Your task to perform on an android device: Open sound settings Image 0: 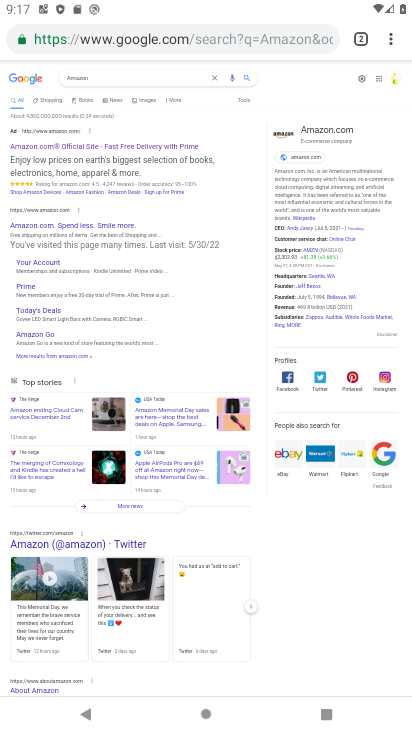
Step 0: press home button
Your task to perform on an android device: Open sound settings Image 1: 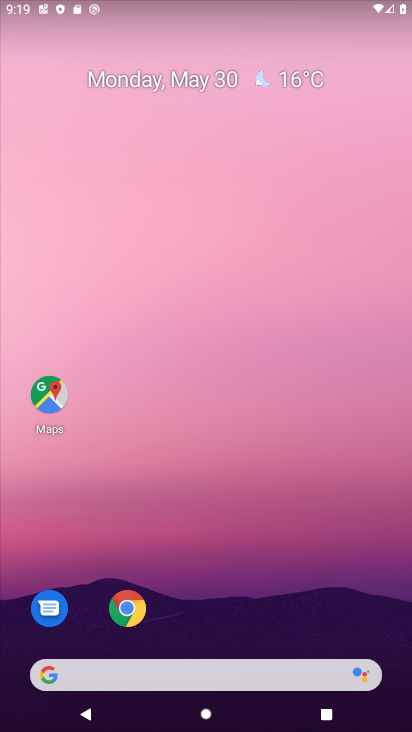
Step 1: drag from (396, 672) to (352, 146)
Your task to perform on an android device: Open sound settings Image 2: 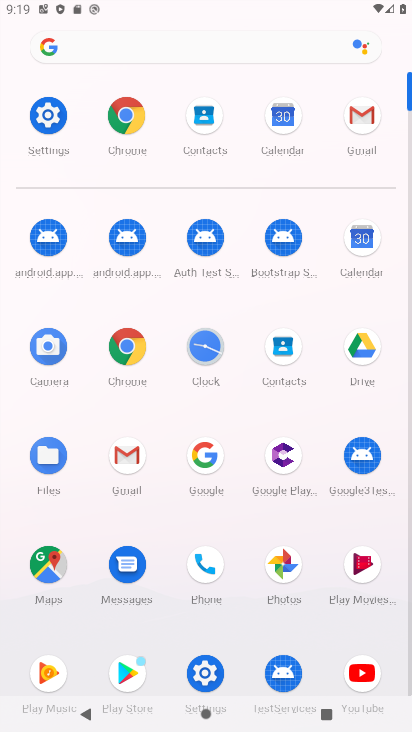
Step 2: click (51, 118)
Your task to perform on an android device: Open sound settings Image 3: 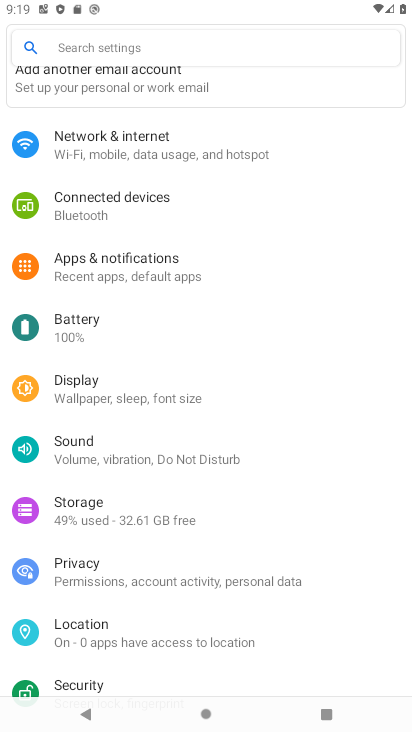
Step 3: click (80, 440)
Your task to perform on an android device: Open sound settings Image 4: 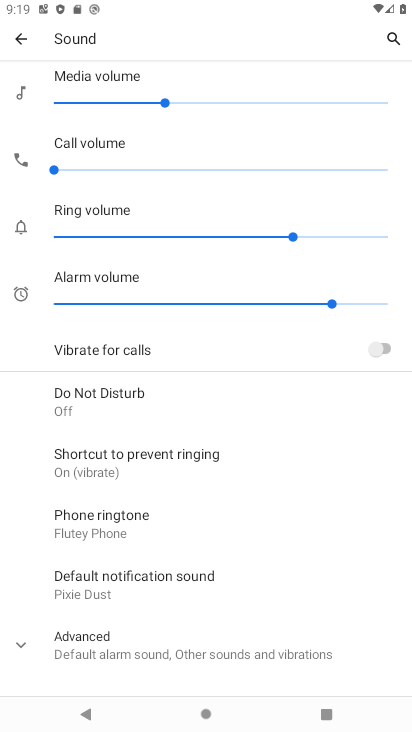
Step 4: task complete